Your task to perform on an android device: Is it going to rain tomorrow? Image 0: 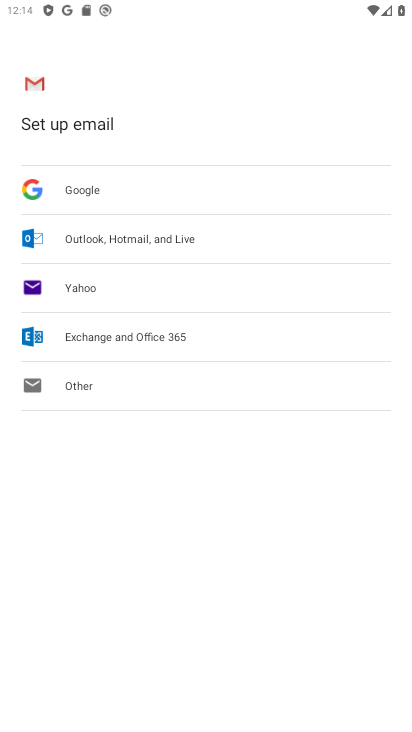
Step 0: press home button
Your task to perform on an android device: Is it going to rain tomorrow? Image 1: 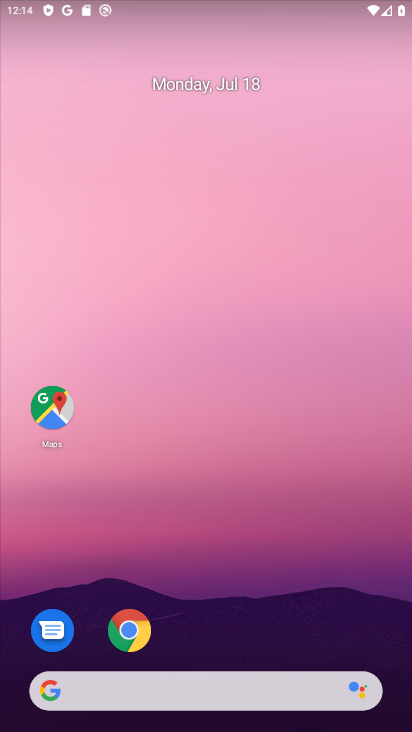
Step 1: drag from (279, 681) to (260, 152)
Your task to perform on an android device: Is it going to rain tomorrow? Image 2: 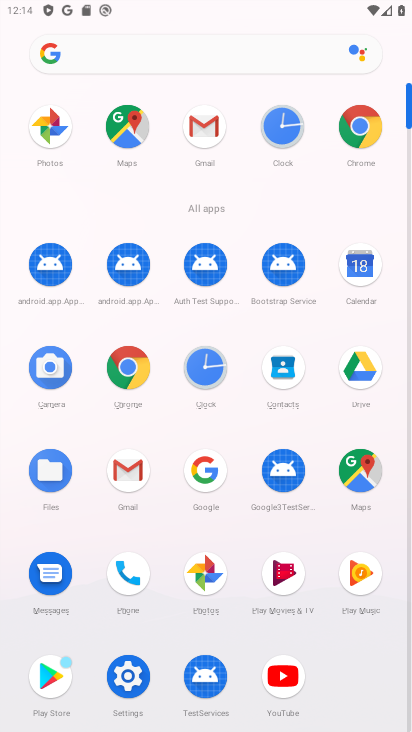
Step 2: click (138, 353)
Your task to perform on an android device: Is it going to rain tomorrow? Image 3: 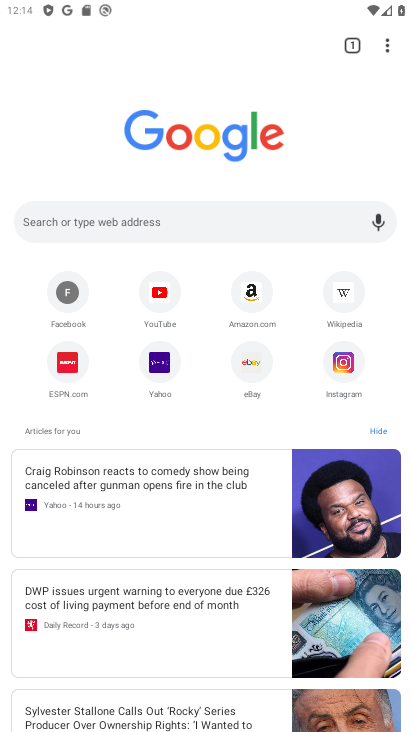
Step 3: click (251, 225)
Your task to perform on an android device: Is it going to rain tomorrow? Image 4: 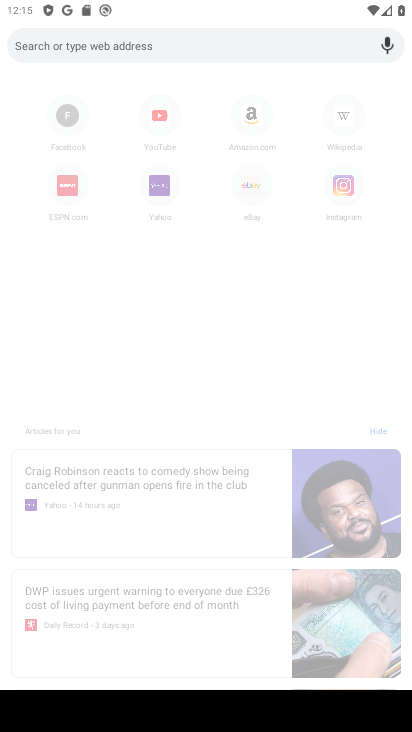
Step 4: type "going to rain tomorrow"
Your task to perform on an android device: Is it going to rain tomorrow? Image 5: 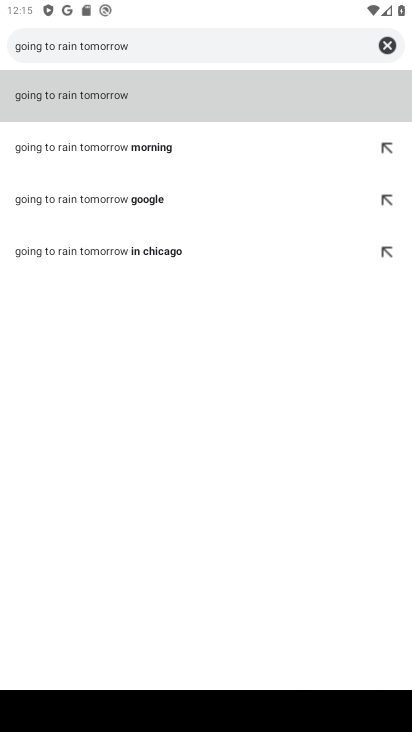
Step 5: click (91, 89)
Your task to perform on an android device: Is it going to rain tomorrow? Image 6: 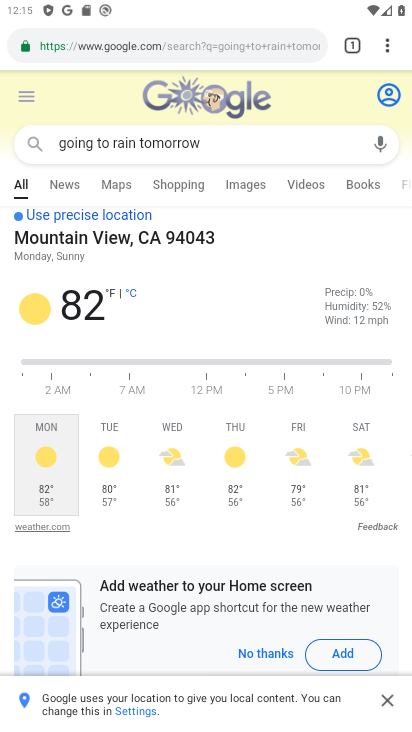
Step 6: task complete